Your task to perform on an android device: Search for vegetarian restaurants on Maps Image 0: 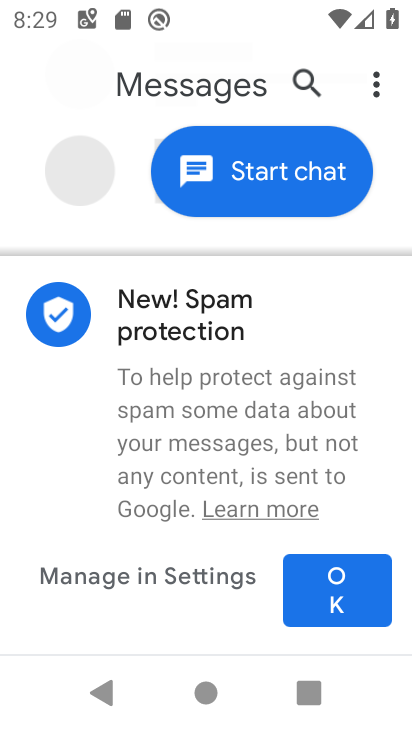
Step 0: press home button
Your task to perform on an android device: Search for vegetarian restaurants on Maps Image 1: 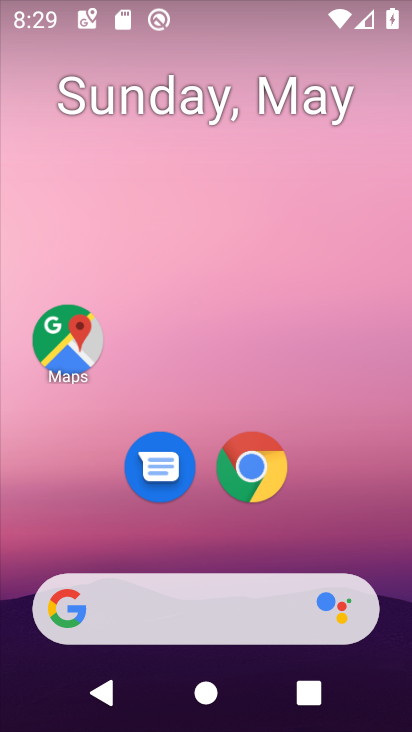
Step 1: drag from (353, 539) to (283, 19)
Your task to perform on an android device: Search for vegetarian restaurants on Maps Image 2: 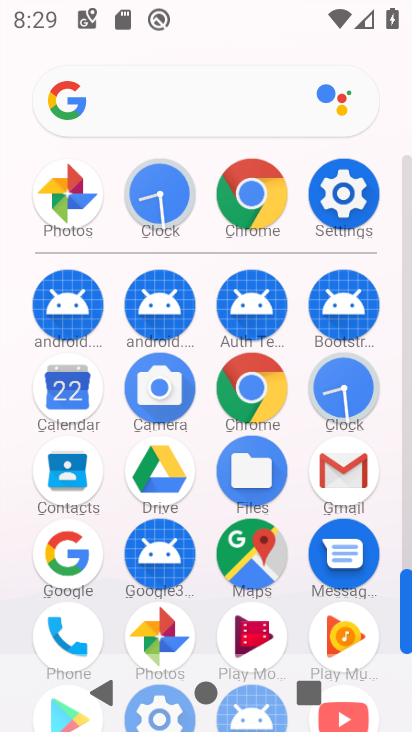
Step 2: drag from (294, 606) to (318, 311)
Your task to perform on an android device: Search for vegetarian restaurants on Maps Image 3: 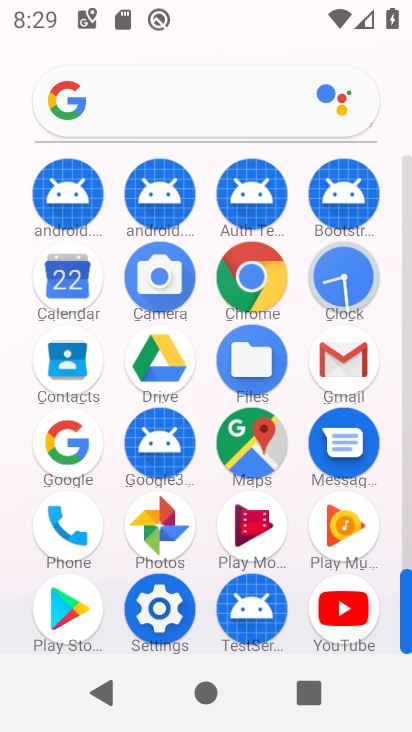
Step 3: click (259, 443)
Your task to perform on an android device: Search for vegetarian restaurants on Maps Image 4: 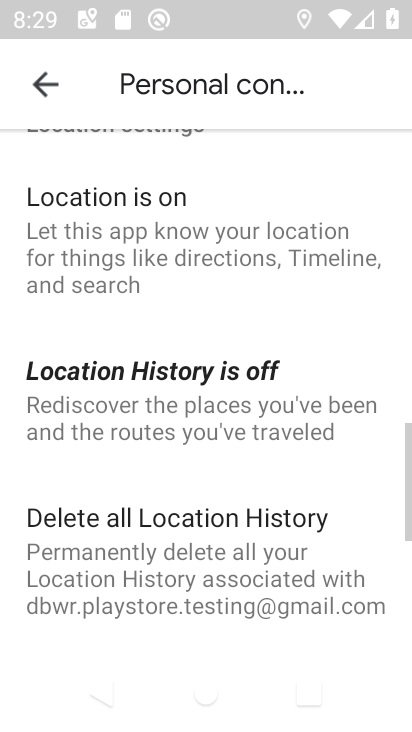
Step 4: click (38, 89)
Your task to perform on an android device: Search for vegetarian restaurants on Maps Image 5: 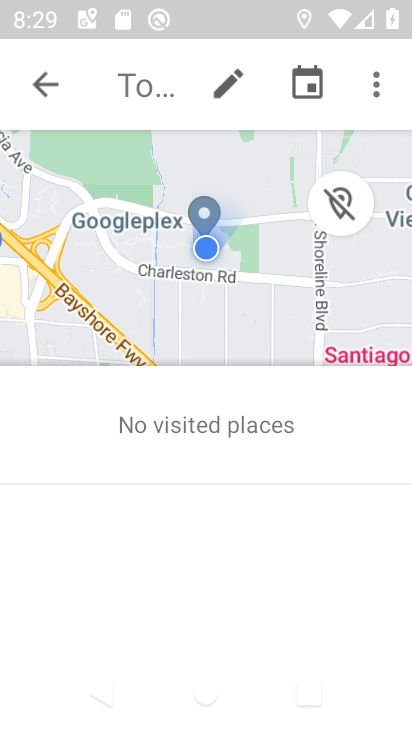
Step 5: click (38, 88)
Your task to perform on an android device: Search for vegetarian restaurants on Maps Image 6: 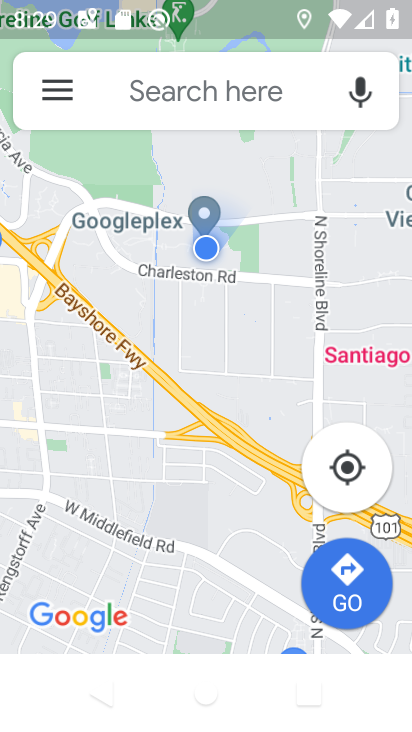
Step 6: click (165, 99)
Your task to perform on an android device: Search for vegetarian restaurants on Maps Image 7: 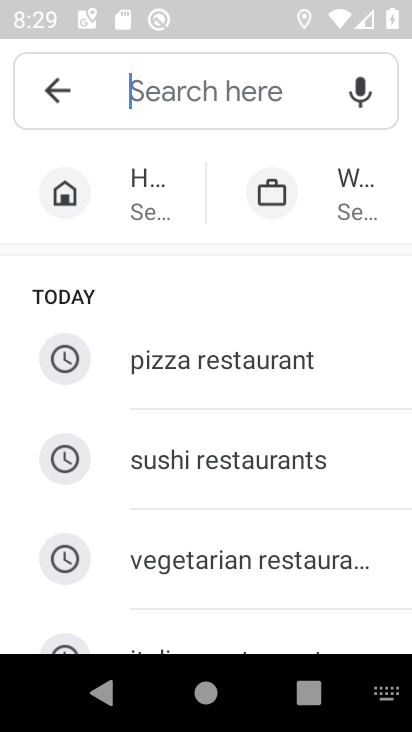
Step 7: click (250, 566)
Your task to perform on an android device: Search for vegetarian restaurants on Maps Image 8: 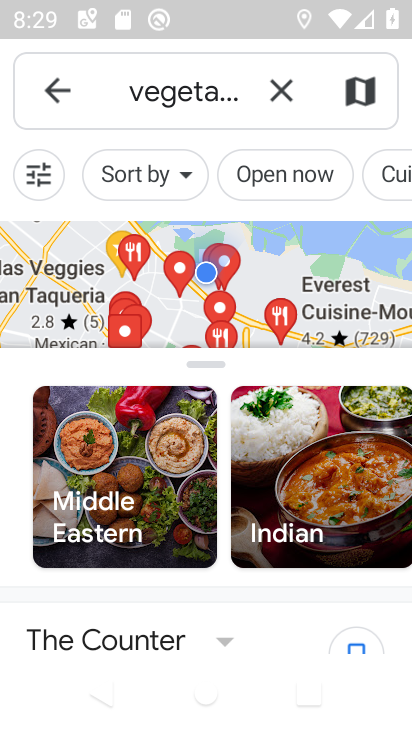
Step 8: task complete